Your task to perform on an android device: Open settings on Google Maps Image 0: 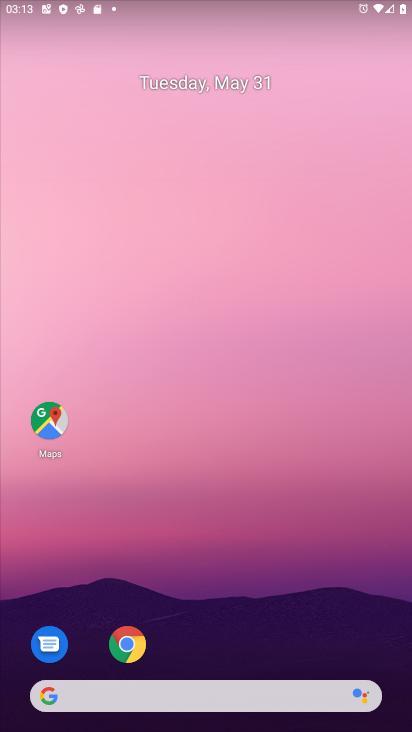
Step 0: drag from (278, 582) to (246, 150)
Your task to perform on an android device: Open settings on Google Maps Image 1: 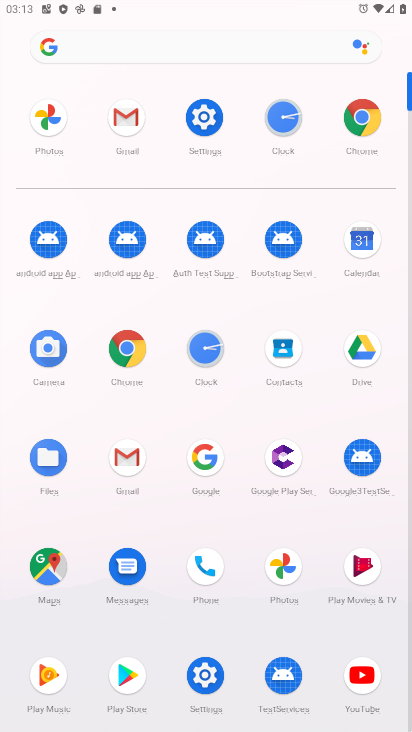
Step 1: click (46, 567)
Your task to perform on an android device: Open settings on Google Maps Image 2: 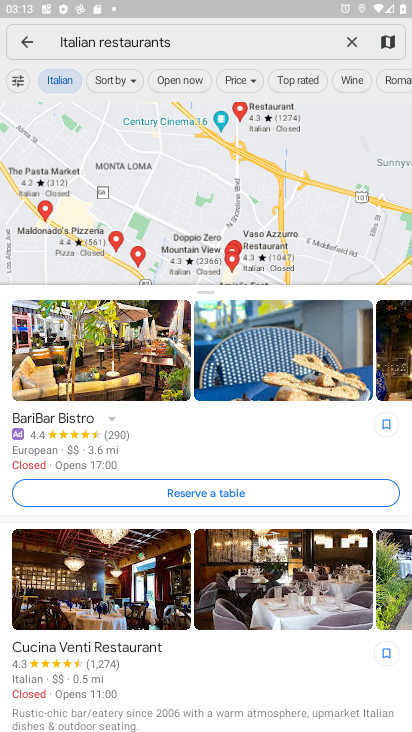
Step 2: click (17, 36)
Your task to perform on an android device: Open settings on Google Maps Image 3: 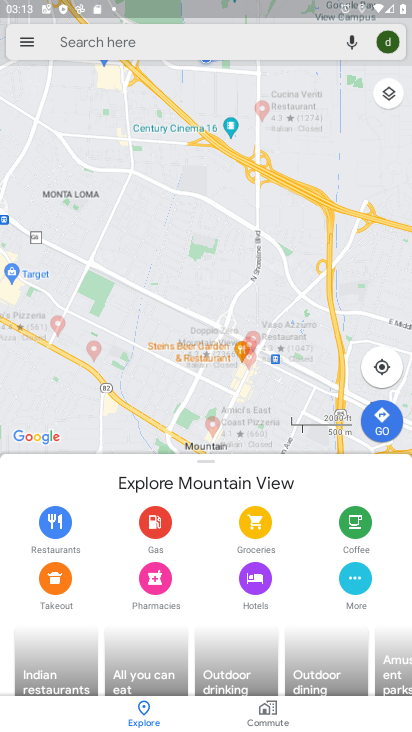
Step 3: click (23, 39)
Your task to perform on an android device: Open settings on Google Maps Image 4: 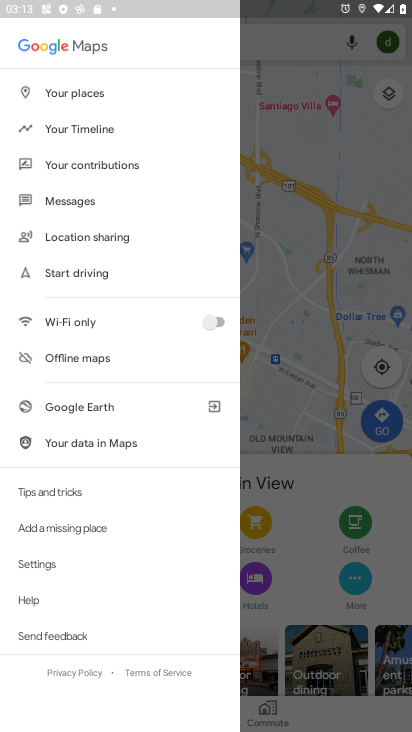
Step 4: click (17, 556)
Your task to perform on an android device: Open settings on Google Maps Image 5: 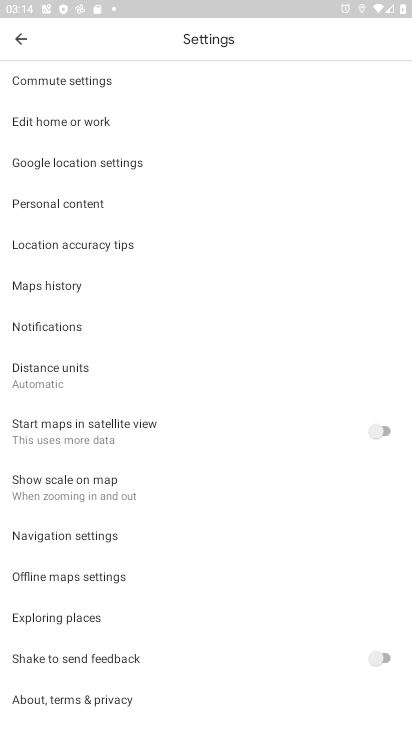
Step 5: task complete